Your task to perform on an android device: Go to CNN.com Image 0: 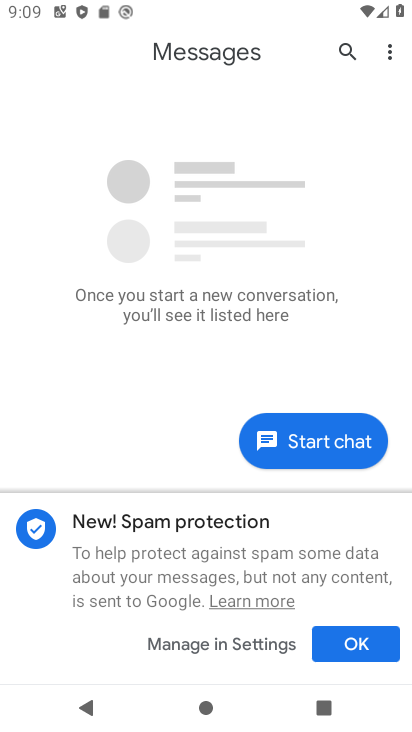
Step 0: press home button
Your task to perform on an android device: Go to CNN.com Image 1: 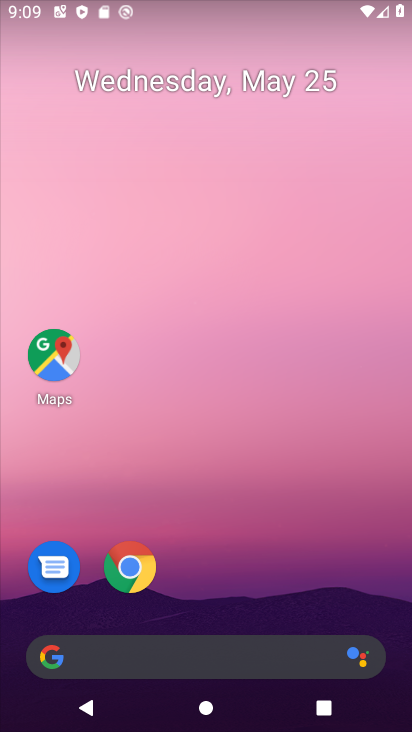
Step 1: click (215, 656)
Your task to perform on an android device: Go to CNN.com Image 2: 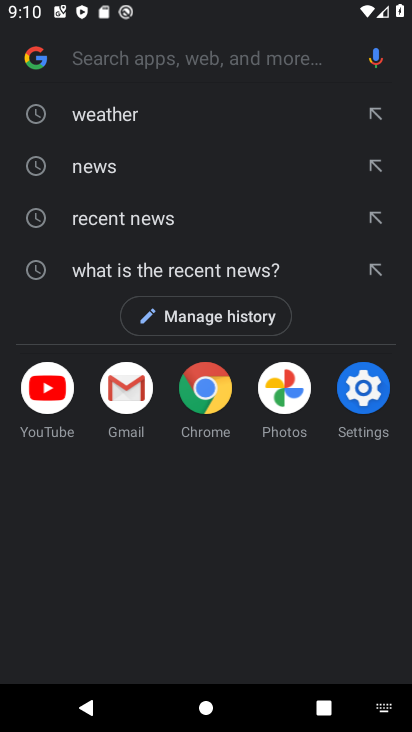
Step 2: type "cnn.com"
Your task to perform on an android device: Go to CNN.com Image 3: 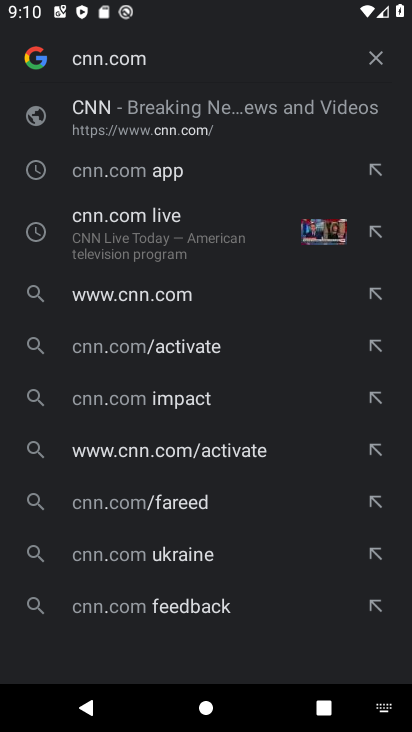
Step 3: click (291, 130)
Your task to perform on an android device: Go to CNN.com Image 4: 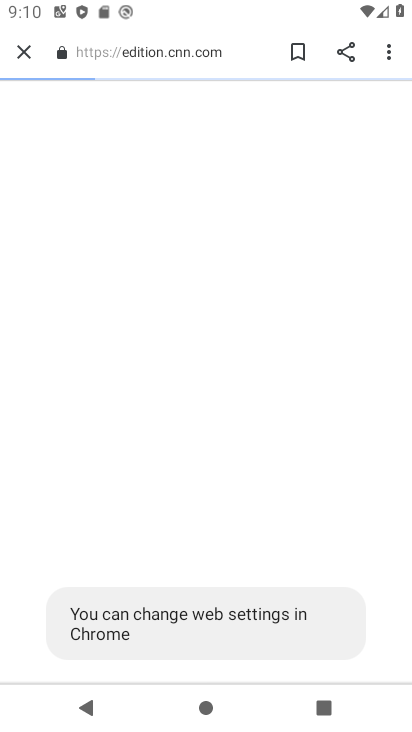
Step 4: task complete